Your task to perform on an android device: Search for sushi restaurants on Maps Image 0: 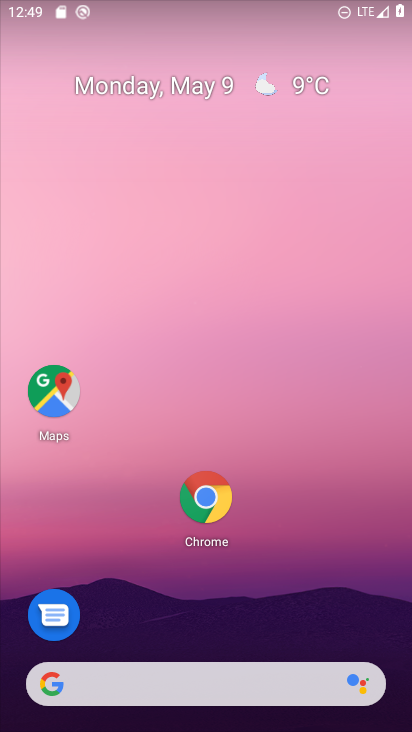
Step 0: drag from (361, 267) to (300, 82)
Your task to perform on an android device: Search for sushi restaurants on Maps Image 1: 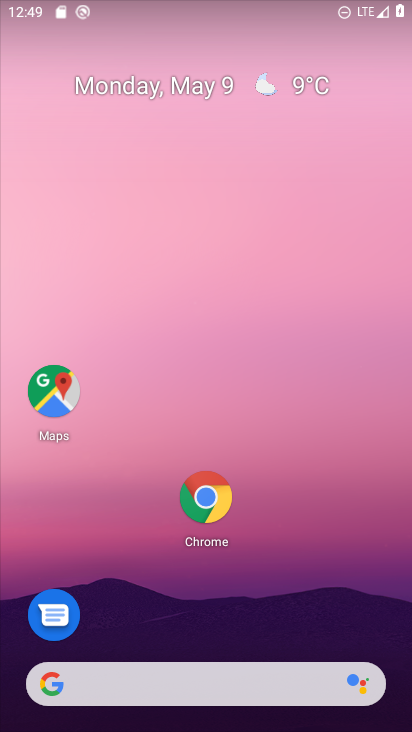
Step 1: drag from (271, 383) to (263, 54)
Your task to perform on an android device: Search for sushi restaurants on Maps Image 2: 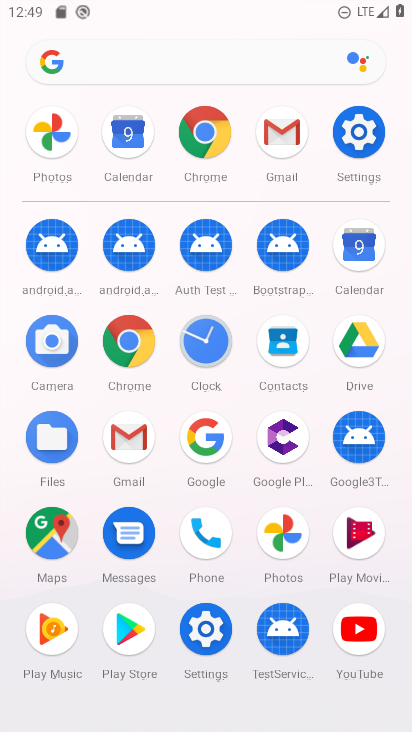
Step 2: click (63, 524)
Your task to perform on an android device: Search for sushi restaurants on Maps Image 3: 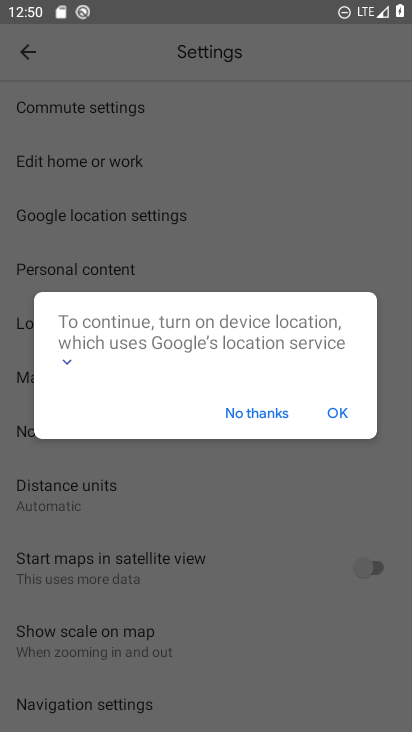
Step 3: click (257, 414)
Your task to perform on an android device: Search for sushi restaurants on Maps Image 4: 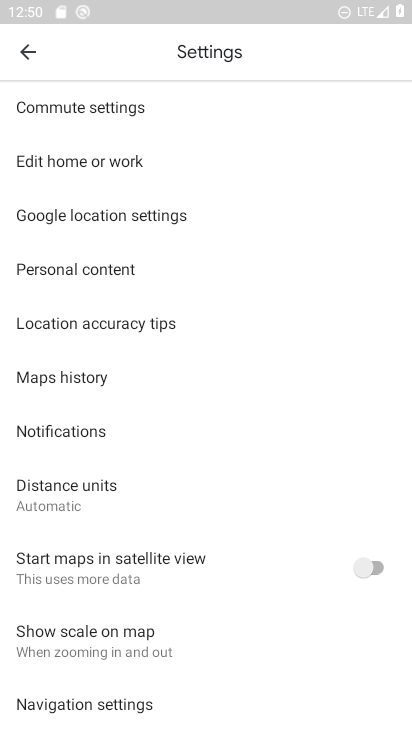
Step 4: click (34, 57)
Your task to perform on an android device: Search for sushi restaurants on Maps Image 5: 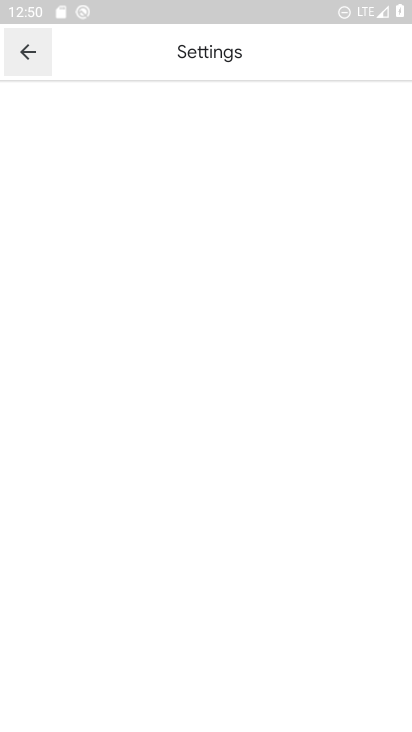
Step 5: click (34, 57)
Your task to perform on an android device: Search for sushi restaurants on Maps Image 6: 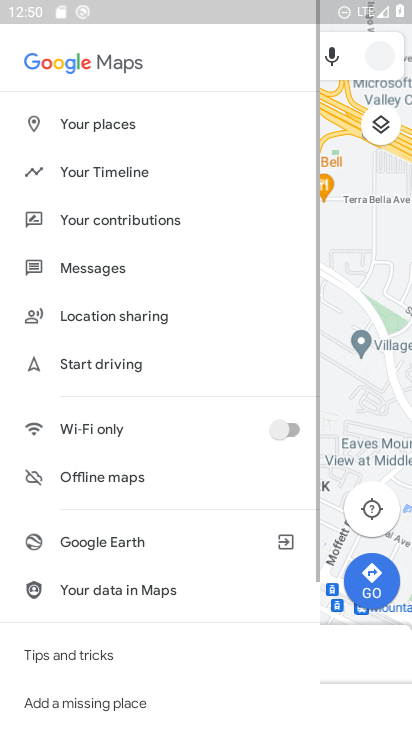
Step 6: click (165, 73)
Your task to perform on an android device: Search for sushi restaurants on Maps Image 7: 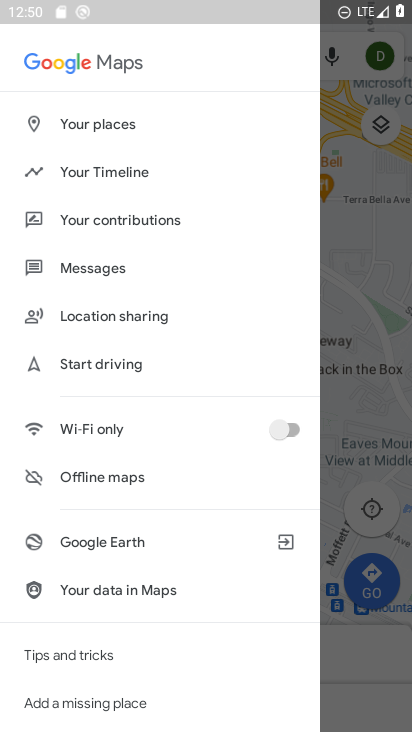
Step 7: click (384, 110)
Your task to perform on an android device: Search for sushi restaurants on Maps Image 8: 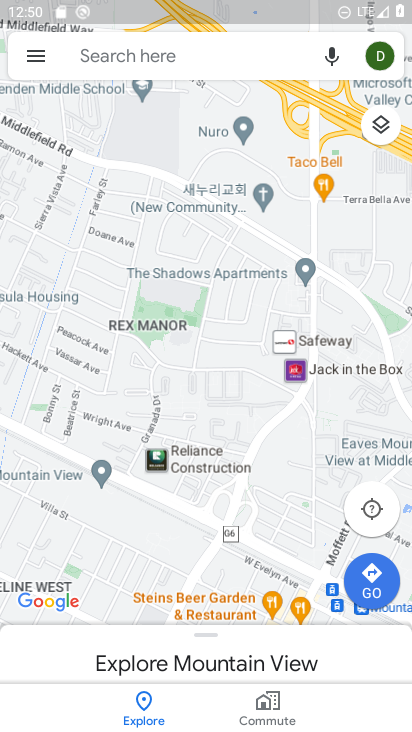
Step 8: click (223, 59)
Your task to perform on an android device: Search for sushi restaurants on Maps Image 9: 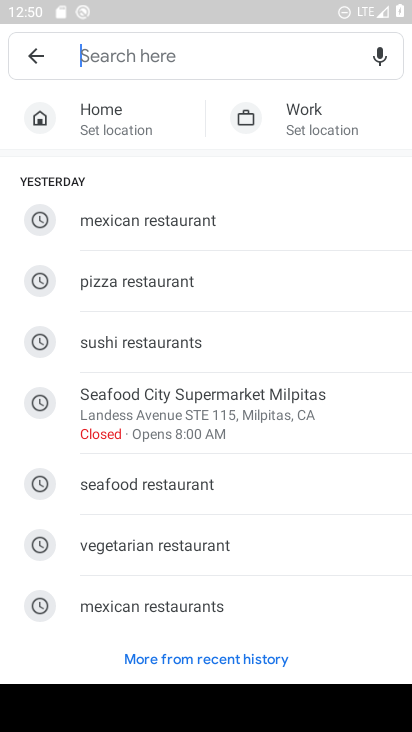
Step 9: click (185, 336)
Your task to perform on an android device: Search for sushi restaurants on Maps Image 10: 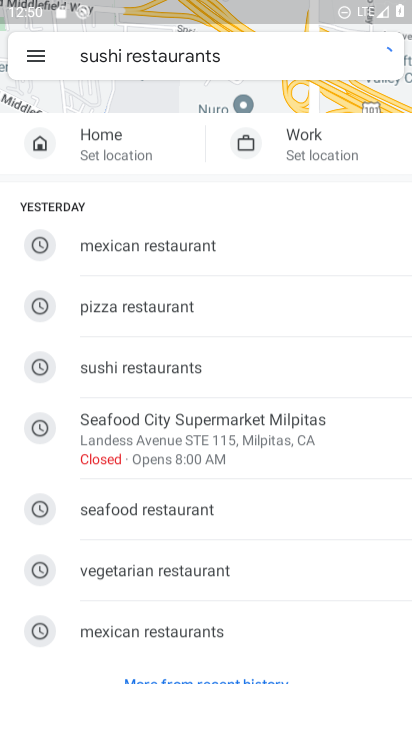
Step 10: click (160, 344)
Your task to perform on an android device: Search for sushi restaurants on Maps Image 11: 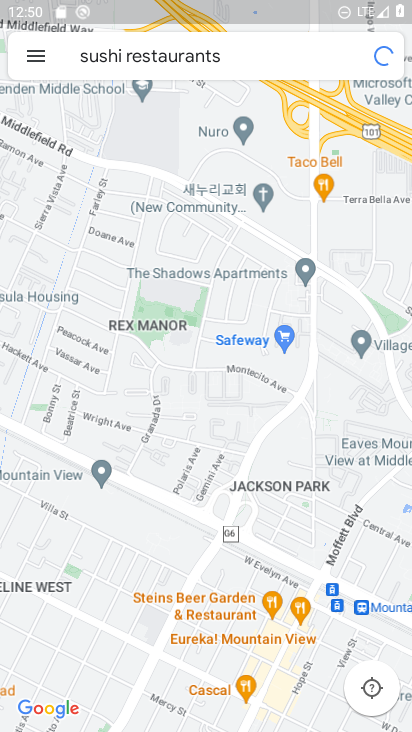
Step 11: click (169, 346)
Your task to perform on an android device: Search for sushi restaurants on Maps Image 12: 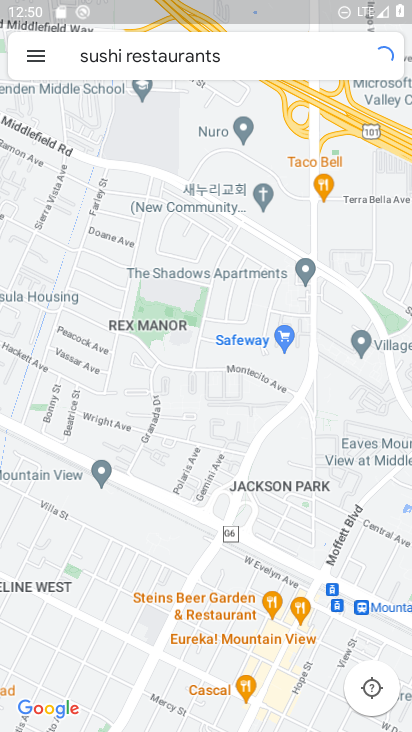
Step 12: click (143, 330)
Your task to perform on an android device: Search for sushi restaurants on Maps Image 13: 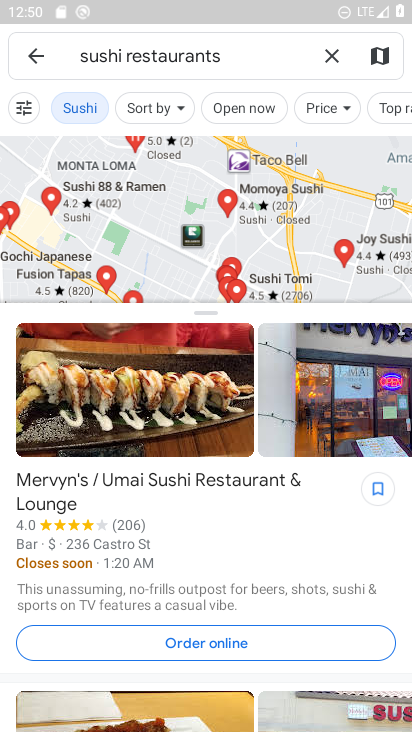
Step 13: task complete